Your task to perform on an android device: open a bookmark in the chrome app Image 0: 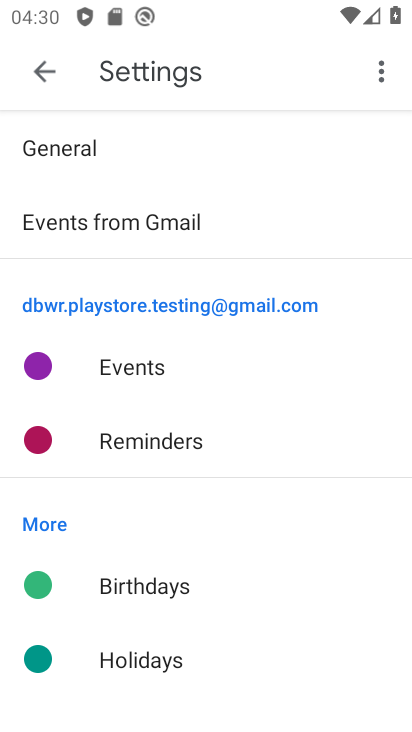
Step 0: press home button
Your task to perform on an android device: open a bookmark in the chrome app Image 1: 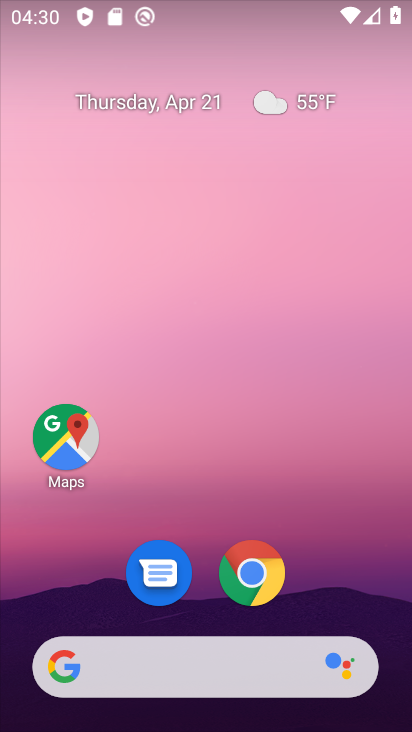
Step 1: drag from (240, 532) to (206, 19)
Your task to perform on an android device: open a bookmark in the chrome app Image 2: 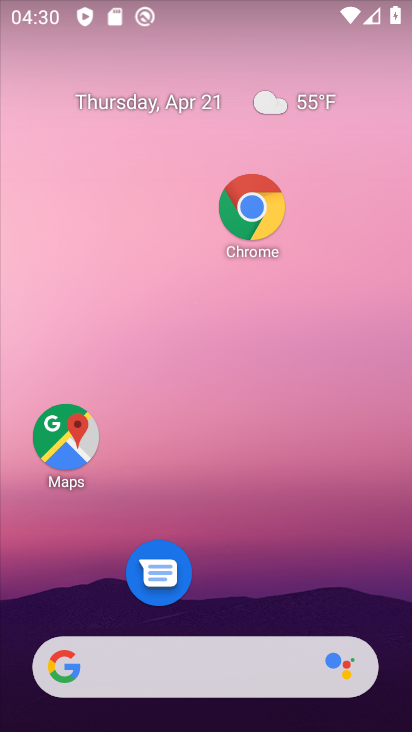
Step 2: click (266, 215)
Your task to perform on an android device: open a bookmark in the chrome app Image 3: 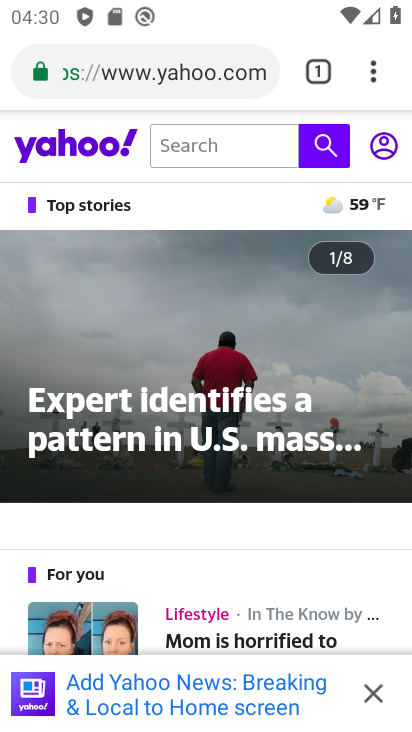
Step 3: task complete